Your task to perform on an android device: Go to display settings Image 0: 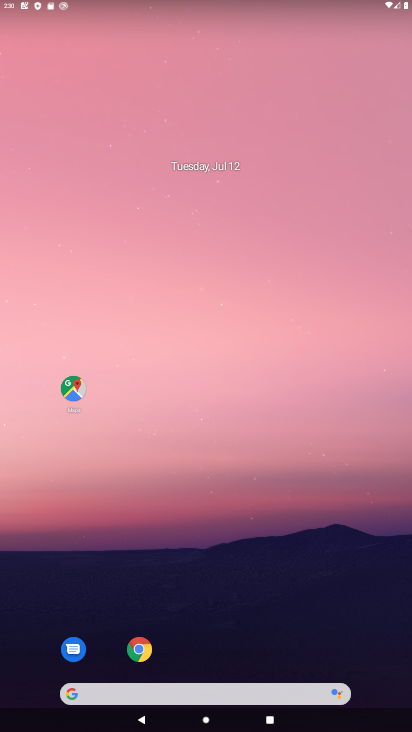
Step 0: drag from (241, 638) to (248, 172)
Your task to perform on an android device: Go to display settings Image 1: 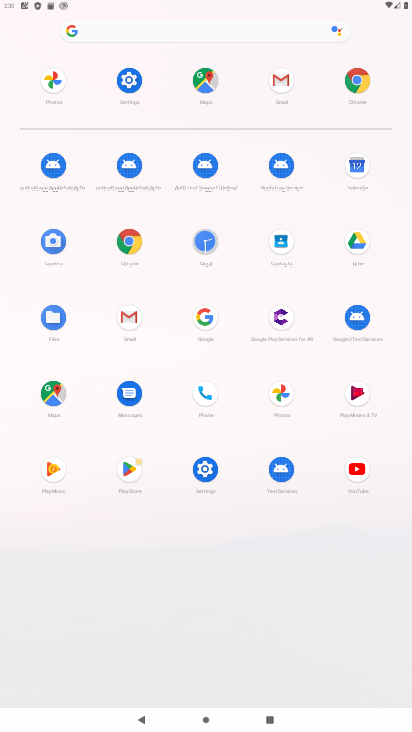
Step 1: click (118, 101)
Your task to perform on an android device: Go to display settings Image 2: 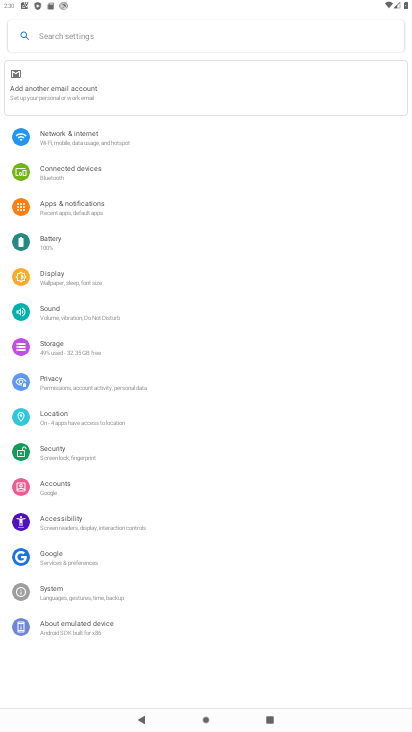
Step 2: click (92, 288)
Your task to perform on an android device: Go to display settings Image 3: 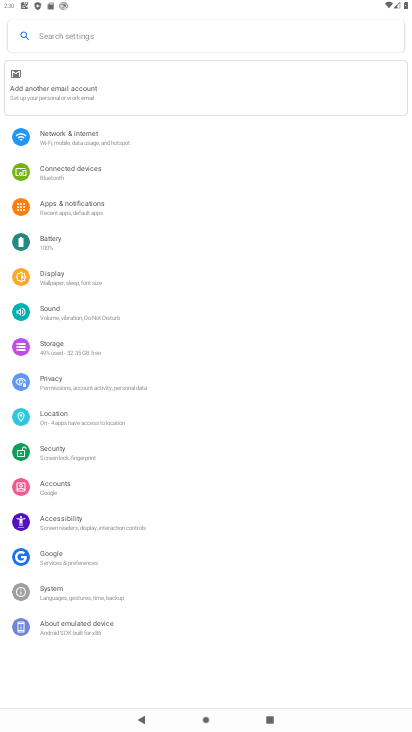
Step 3: click (72, 294)
Your task to perform on an android device: Go to display settings Image 4: 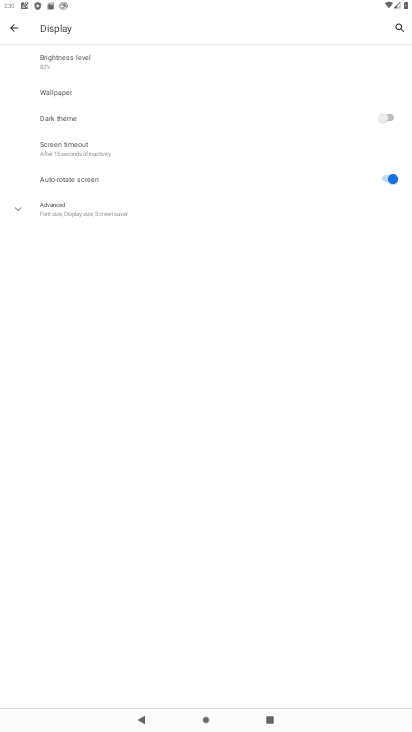
Step 4: task complete